Your task to perform on an android device: Do I have any events tomorrow? Image 0: 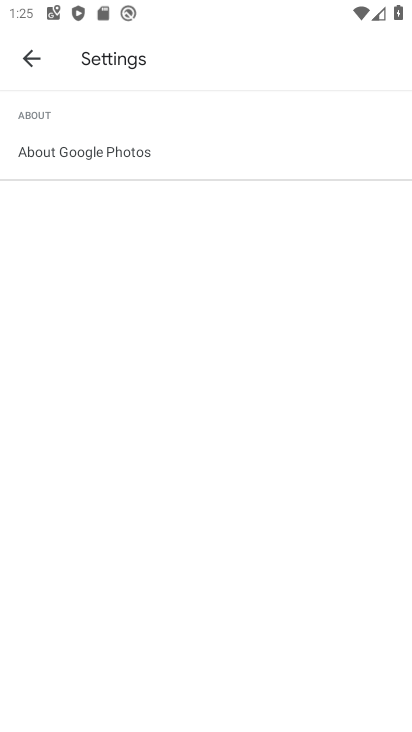
Step 0: press home button
Your task to perform on an android device: Do I have any events tomorrow? Image 1: 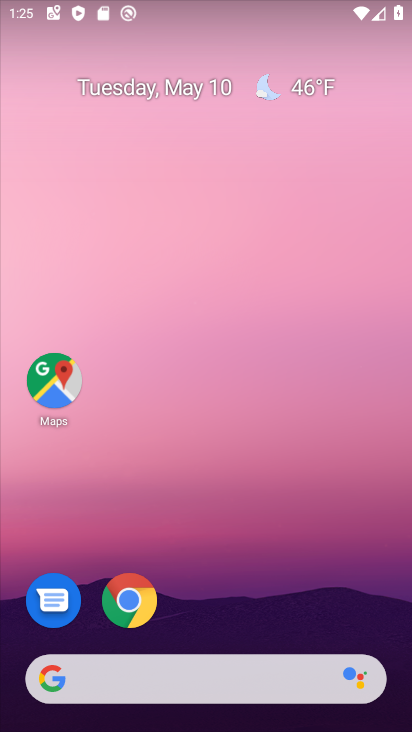
Step 1: drag from (95, 672) to (269, 106)
Your task to perform on an android device: Do I have any events tomorrow? Image 2: 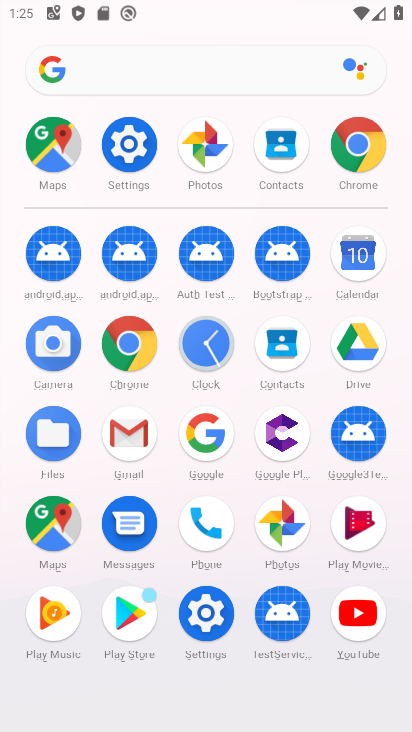
Step 2: click (353, 263)
Your task to perform on an android device: Do I have any events tomorrow? Image 3: 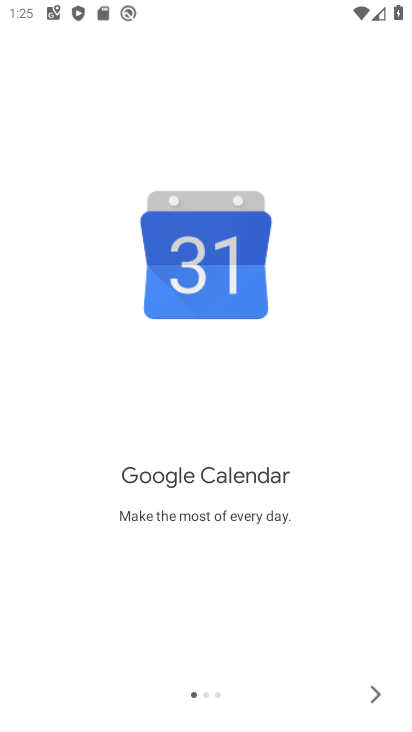
Step 3: click (371, 691)
Your task to perform on an android device: Do I have any events tomorrow? Image 4: 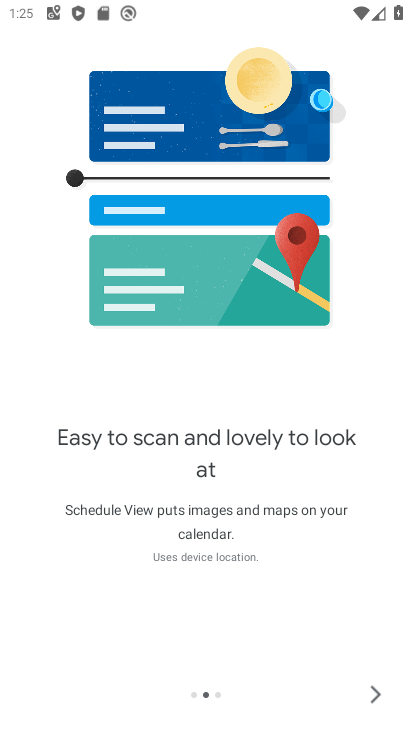
Step 4: click (374, 690)
Your task to perform on an android device: Do I have any events tomorrow? Image 5: 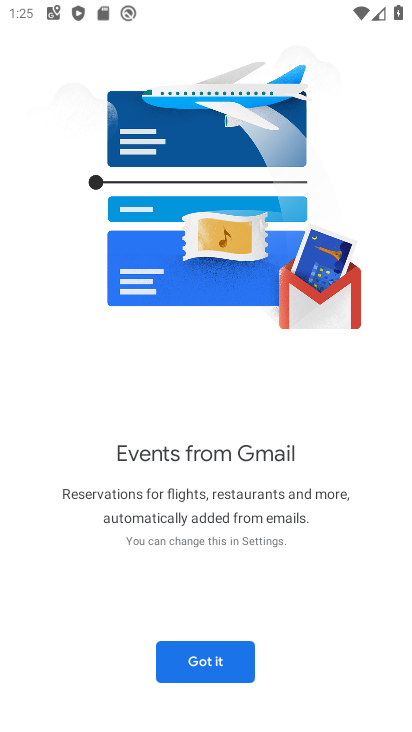
Step 5: click (224, 662)
Your task to perform on an android device: Do I have any events tomorrow? Image 6: 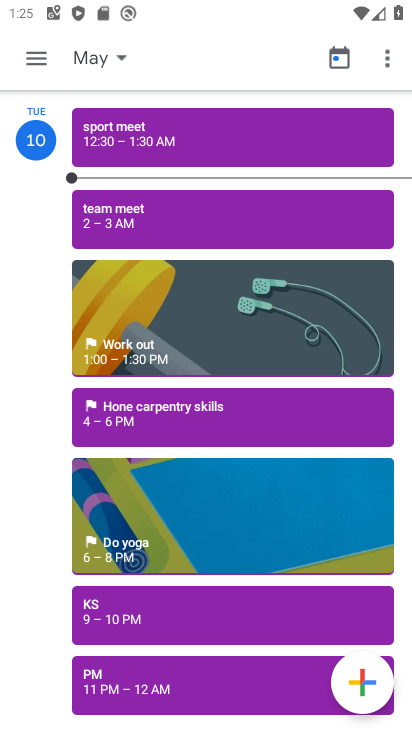
Step 6: click (86, 50)
Your task to perform on an android device: Do I have any events tomorrow? Image 7: 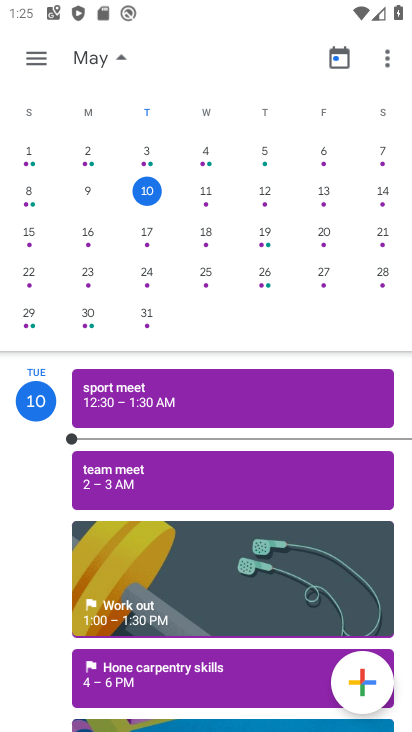
Step 7: click (204, 189)
Your task to perform on an android device: Do I have any events tomorrow? Image 8: 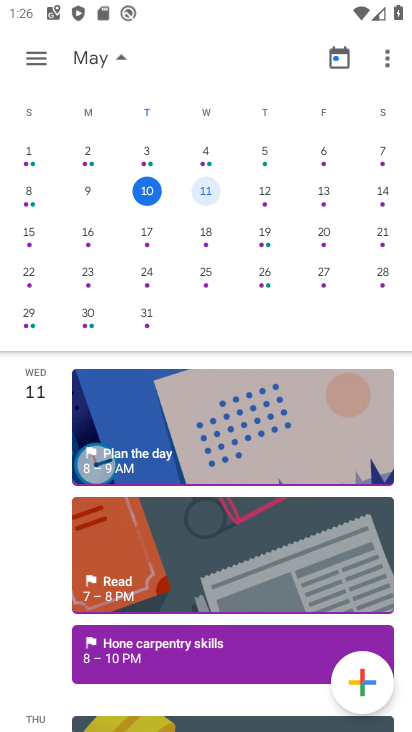
Step 8: click (37, 50)
Your task to perform on an android device: Do I have any events tomorrow? Image 9: 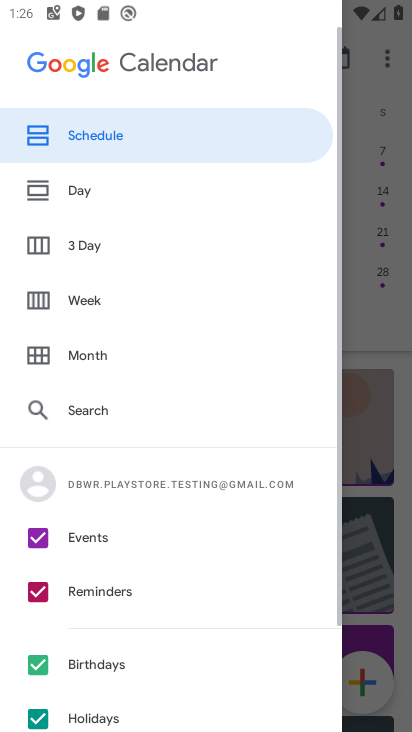
Step 9: click (91, 139)
Your task to perform on an android device: Do I have any events tomorrow? Image 10: 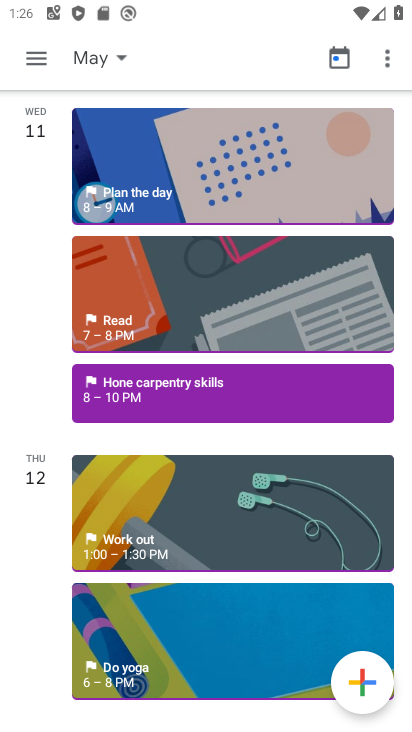
Step 10: click (108, 388)
Your task to perform on an android device: Do I have any events tomorrow? Image 11: 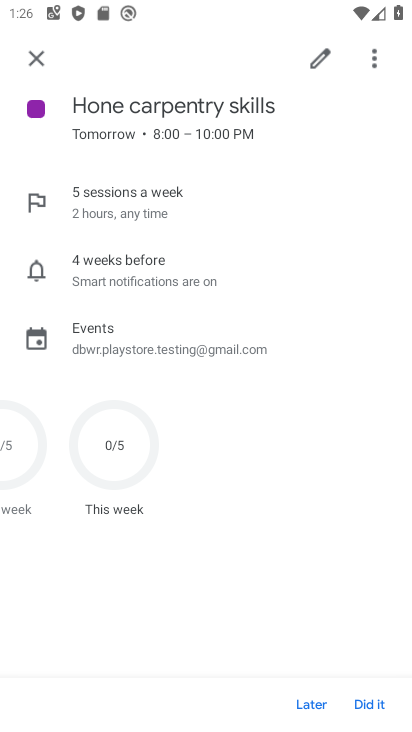
Step 11: task complete